Your task to perform on an android device: Open Google Maps Image 0: 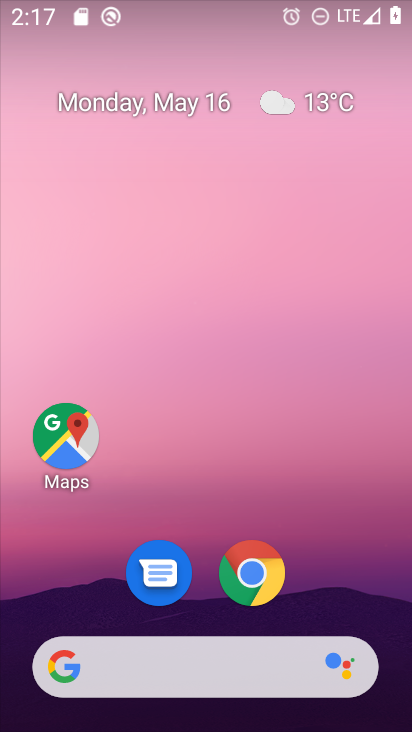
Step 0: click (74, 465)
Your task to perform on an android device: Open Google Maps Image 1: 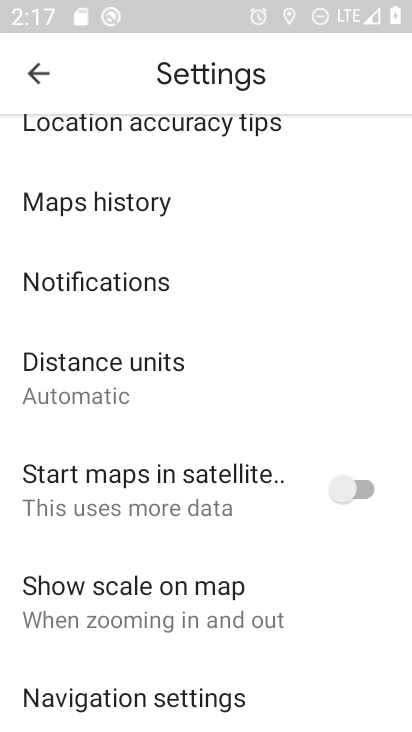
Step 1: task complete